Your task to perform on an android device: Open Youtube and go to the subscriptions tab Image 0: 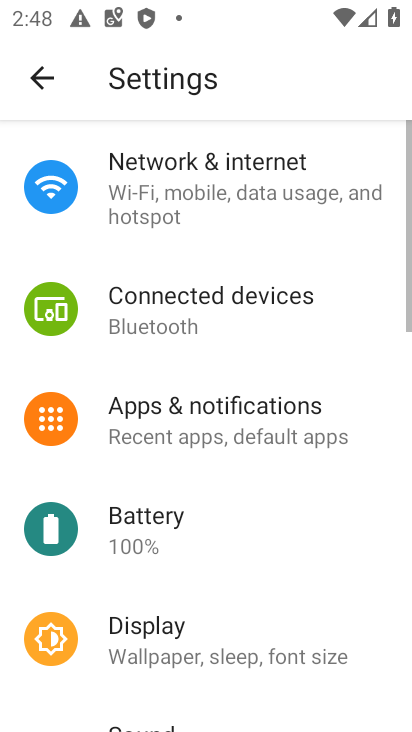
Step 0: press home button
Your task to perform on an android device: Open Youtube and go to the subscriptions tab Image 1: 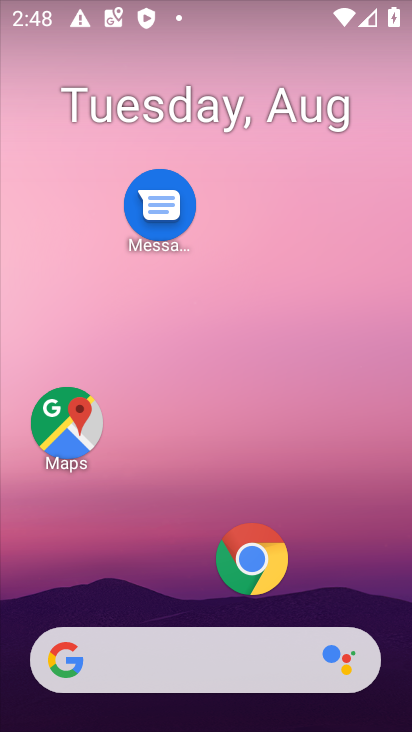
Step 1: drag from (144, 599) to (167, 23)
Your task to perform on an android device: Open Youtube and go to the subscriptions tab Image 2: 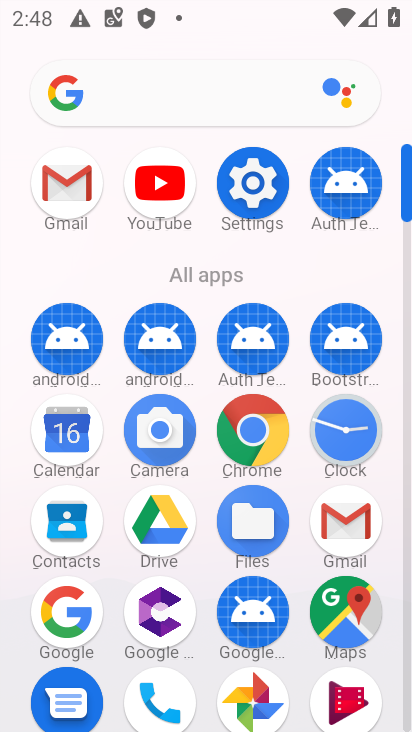
Step 2: click (161, 184)
Your task to perform on an android device: Open Youtube and go to the subscriptions tab Image 3: 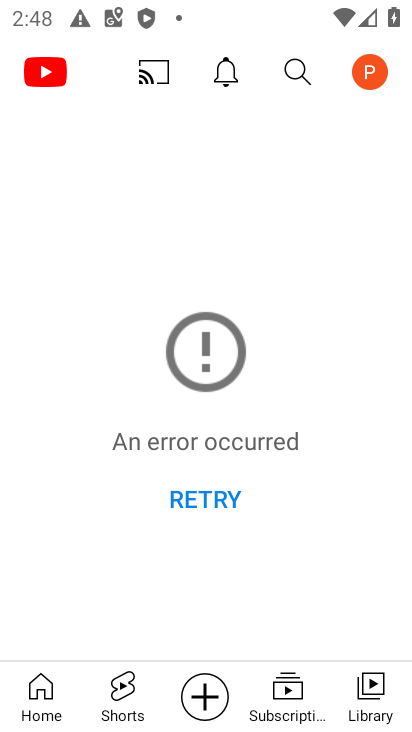
Step 3: click (285, 692)
Your task to perform on an android device: Open Youtube and go to the subscriptions tab Image 4: 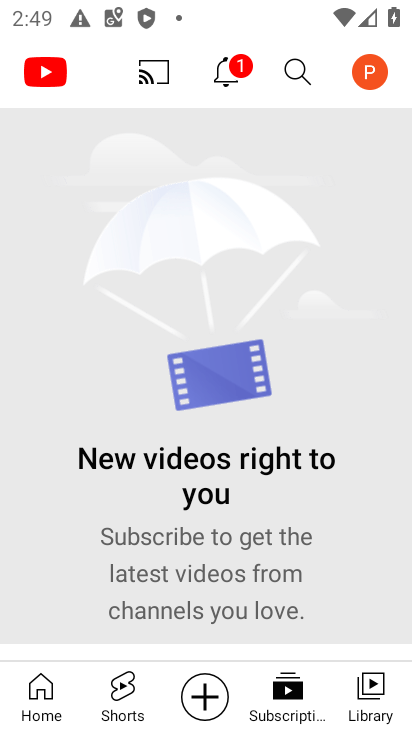
Step 4: click (285, 692)
Your task to perform on an android device: Open Youtube and go to the subscriptions tab Image 5: 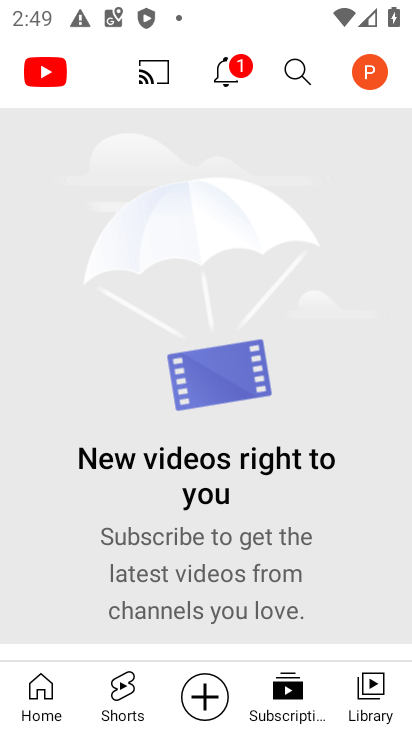
Step 5: task complete